Your task to perform on an android device: How much does a 2 bedroom apartment rent for in Los Angeles? Image 0: 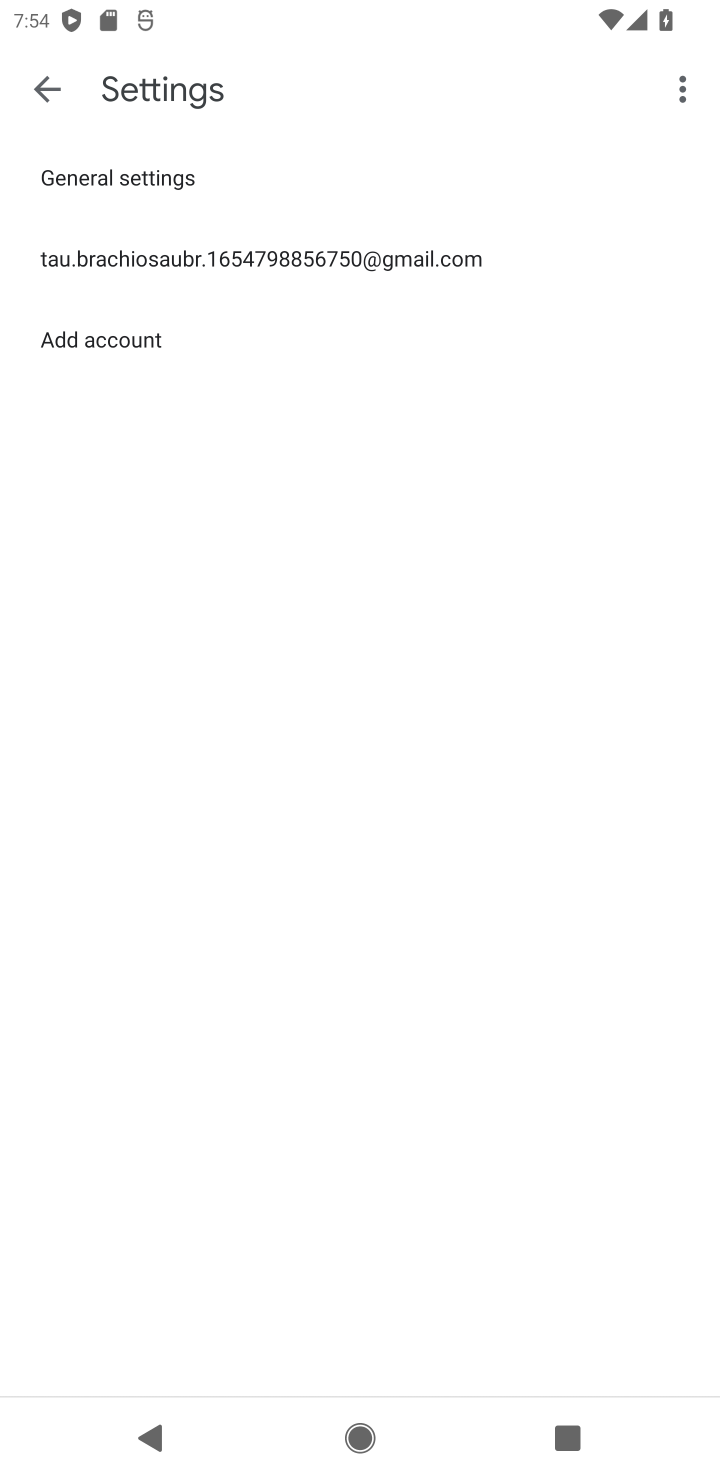
Step 0: press home button
Your task to perform on an android device: How much does a 2 bedroom apartment rent for in Los Angeles? Image 1: 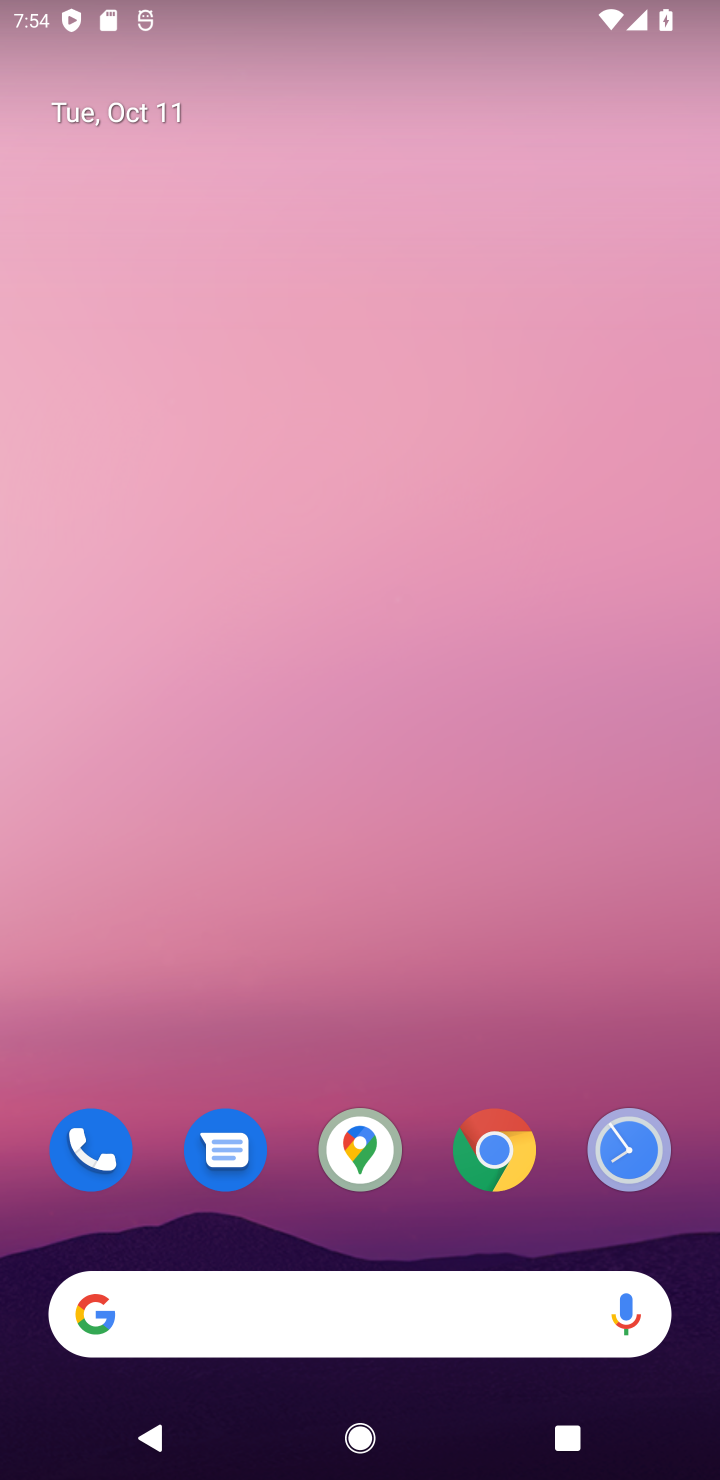
Step 1: click (498, 1152)
Your task to perform on an android device: How much does a 2 bedroom apartment rent for in Los Angeles? Image 2: 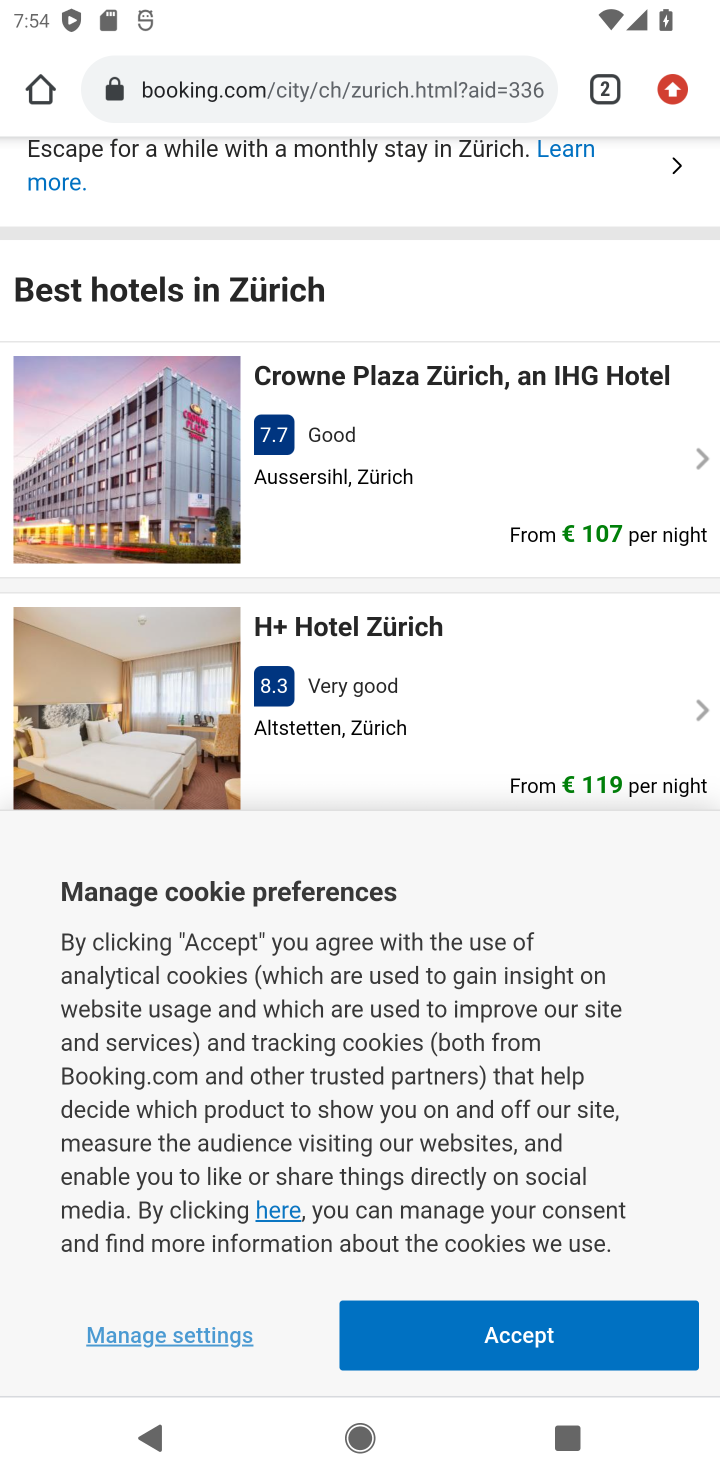
Step 2: click (349, 102)
Your task to perform on an android device: How much does a 2 bedroom apartment rent for in Los Angeles? Image 3: 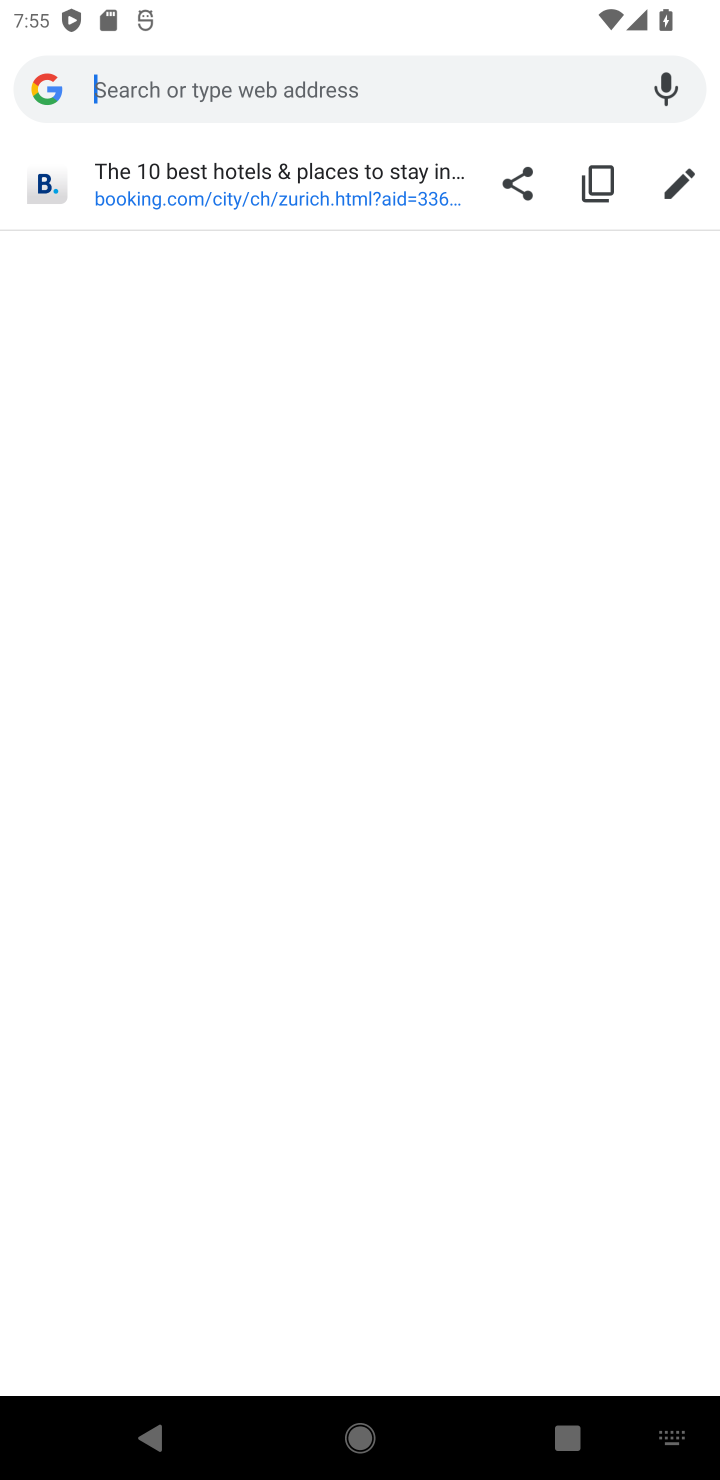
Step 3: type "rent for 2 bhk in los angeles"
Your task to perform on an android device: How much does a 2 bedroom apartment rent for in Los Angeles? Image 4: 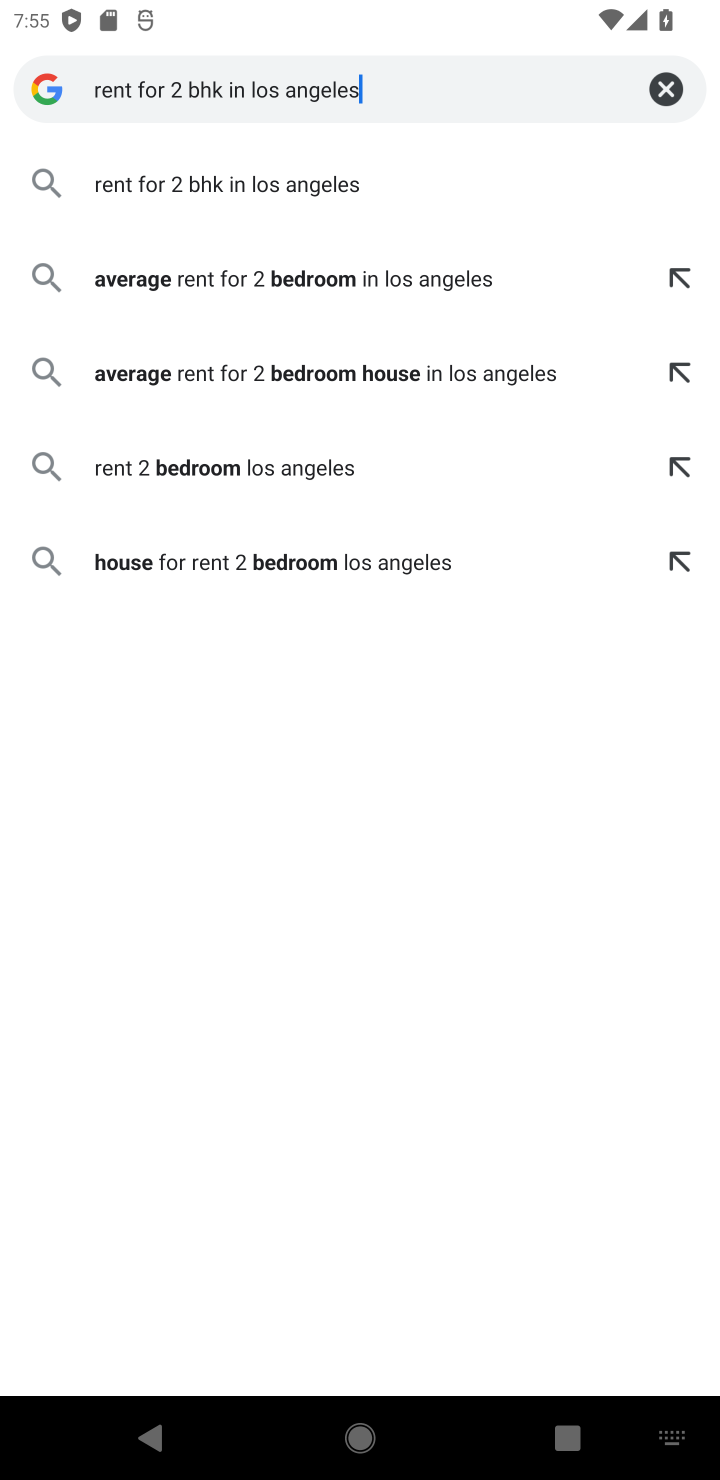
Step 4: click (322, 187)
Your task to perform on an android device: How much does a 2 bedroom apartment rent for in Los Angeles? Image 5: 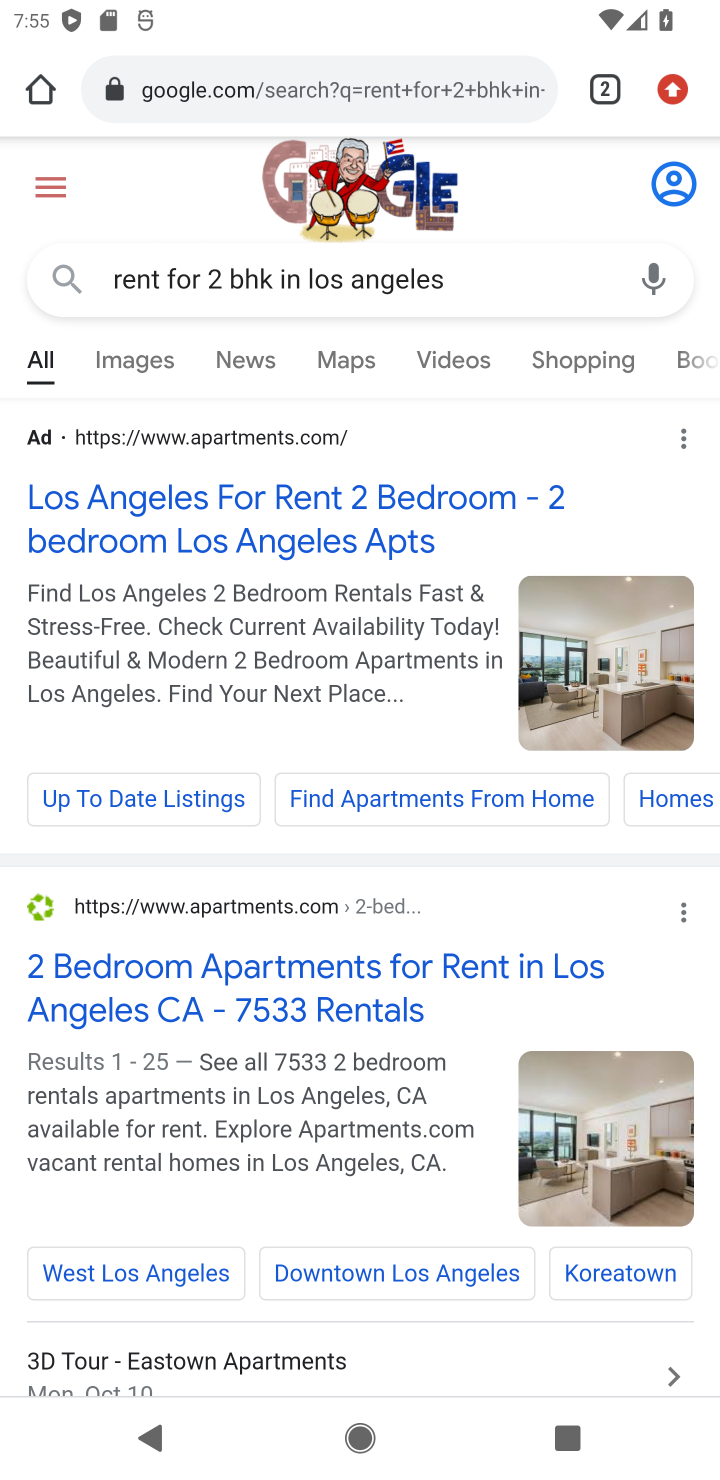
Step 5: click (226, 536)
Your task to perform on an android device: How much does a 2 bedroom apartment rent for in Los Angeles? Image 6: 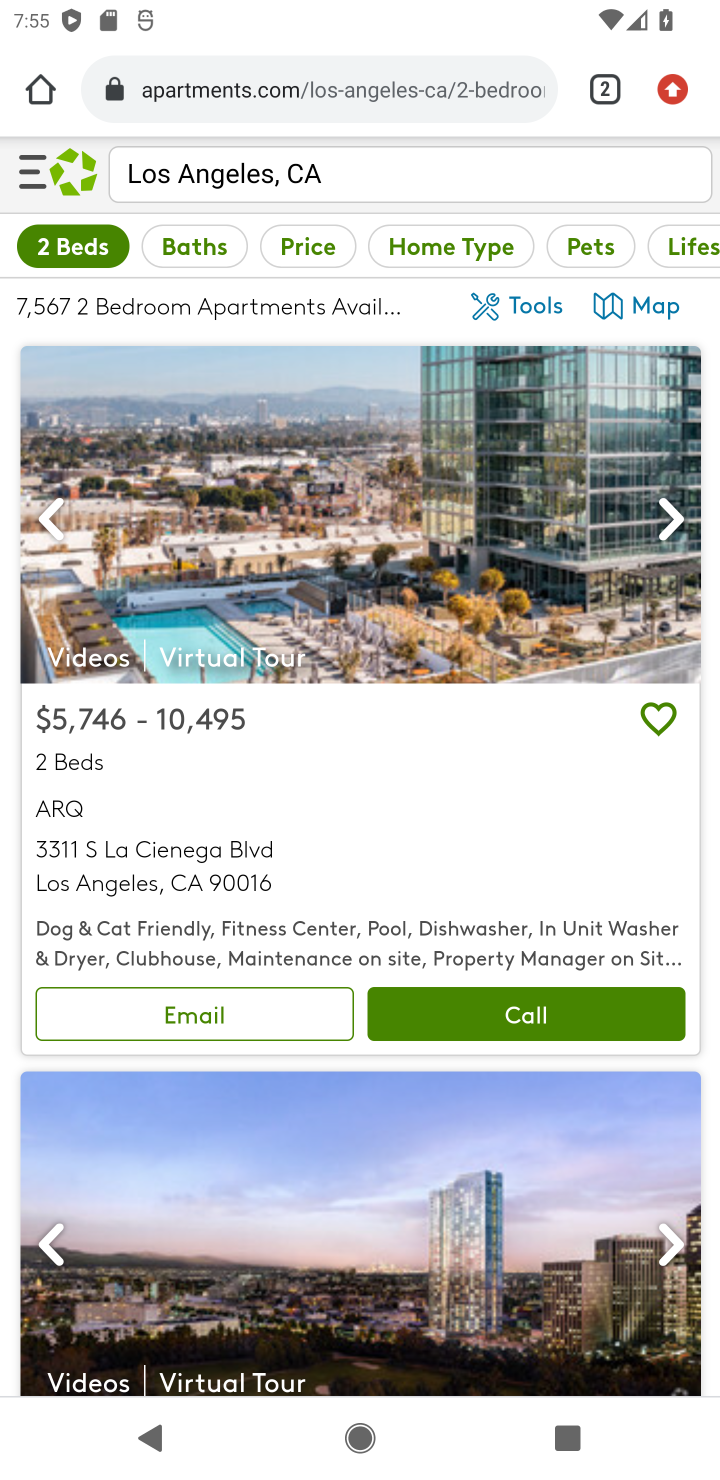
Step 6: task complete